Your task to perform on an android device: turn off picture-in-picture Image 0: 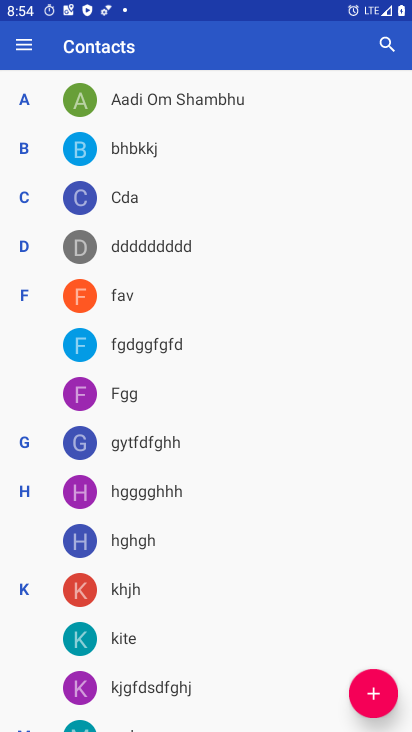
Step 0: press home button
Your task to perform on an android device: turn off picture-in-picture Image 1: 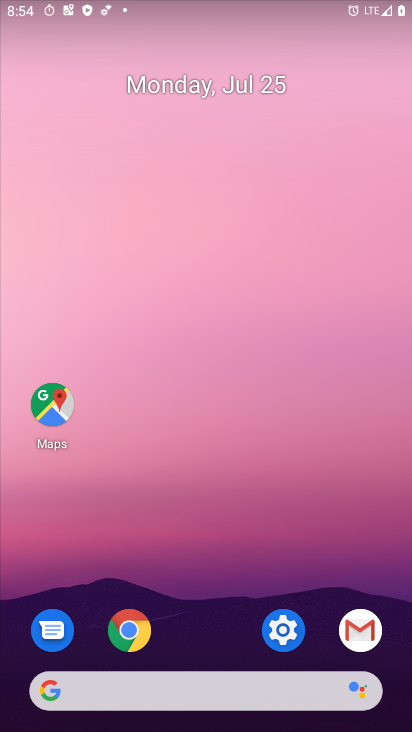
Step 1: click (278, 633)
Your task to perform on an android device: turn off picture-in-picture Image 2: 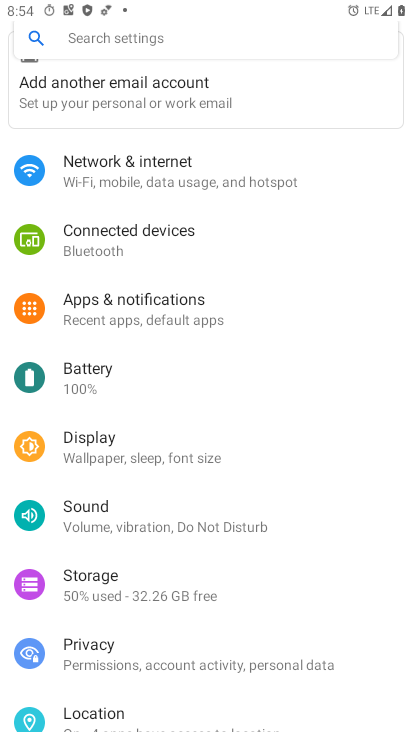
Step 2: press home button
Your task to perform on an android device: turn off picture-in-picture Image 3: 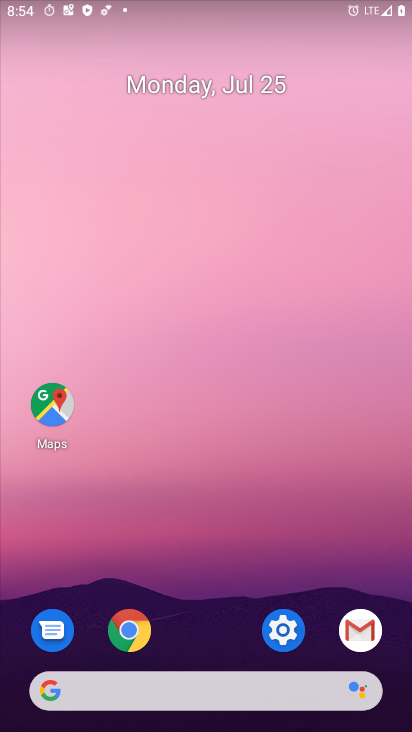
Step 3: drag from (250, 707) to (315, 134)
Your task to perform on an android device: turn off picture-in-picture Image 4: 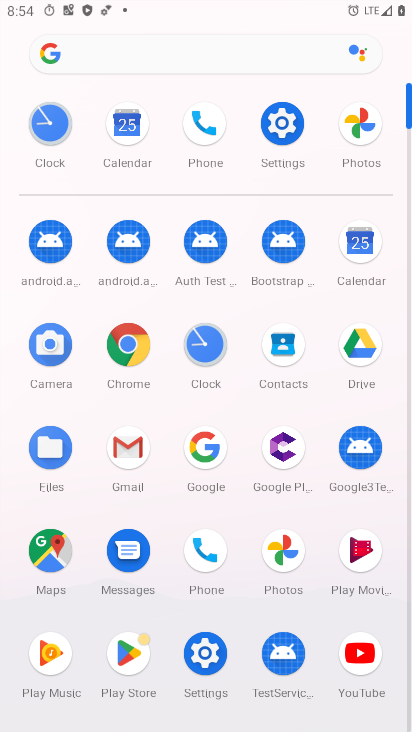
Step 4: click (349, 657)
Your task to perform on an android device: turn off picture-in-picture Image 5: 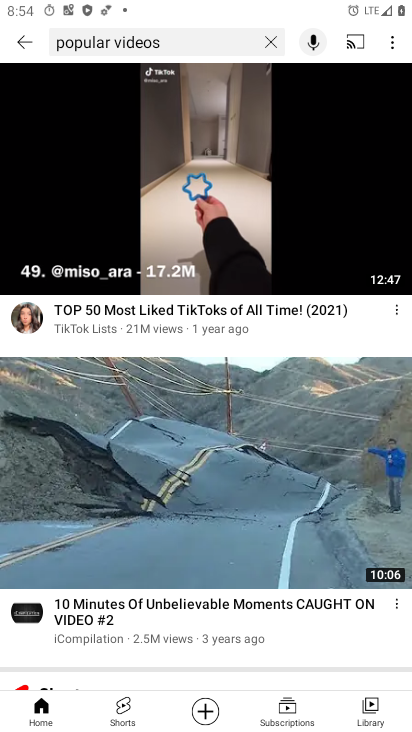
Step 5: click (24, 41)
Your task to perform on an android device: turn off picture-in-picture Image 6: 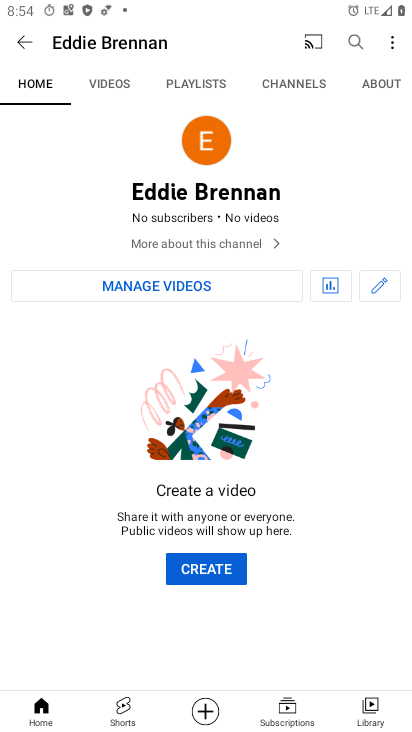
Step 6: click (386, 48)
Your task to perform on an android device: turn off picture-in-picture Image 7: 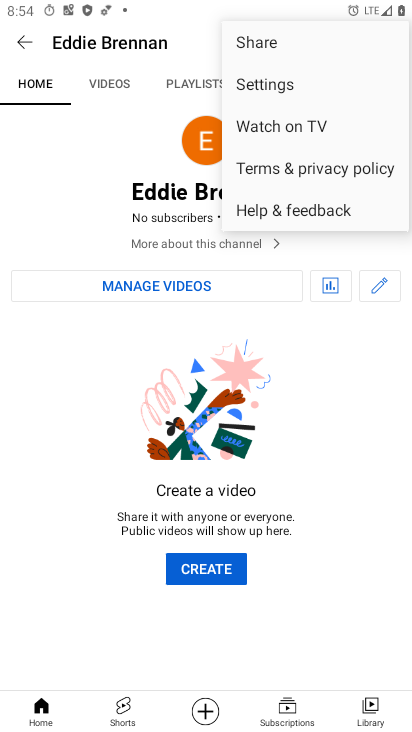
Step 7: click (280, 78)
Your task to perform on an android device: turn off picture-in-picture Image 8: 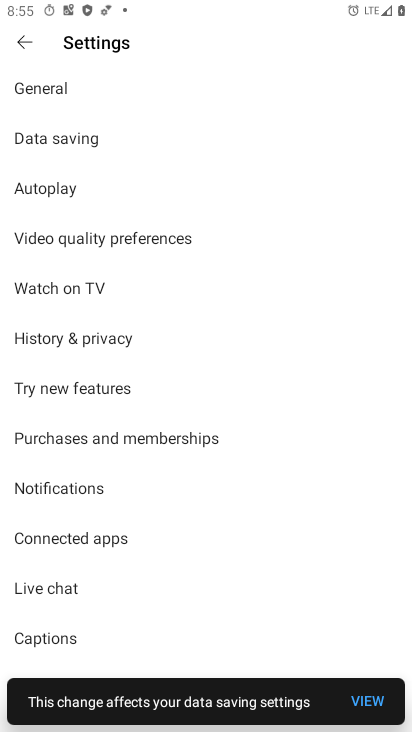
Step 8: click (42, 93)
Your task to perform on an android device: turn off picture-in-picture Image 9: 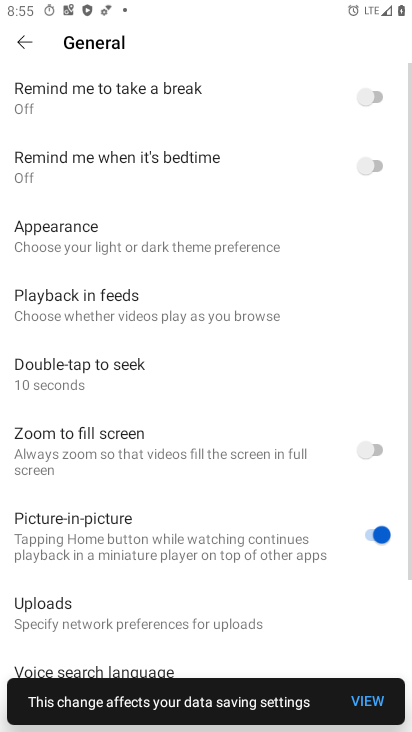
Step 9: click (375, 531)
Your task to perform on an android device: turn off picture-in-picture Image 10: 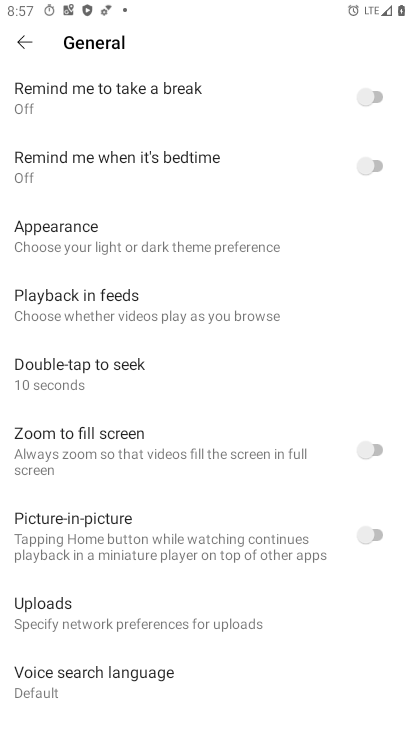
Step 10: task complete